Your task to perform on an android device: turn pop-ups on in chrome Image 0: 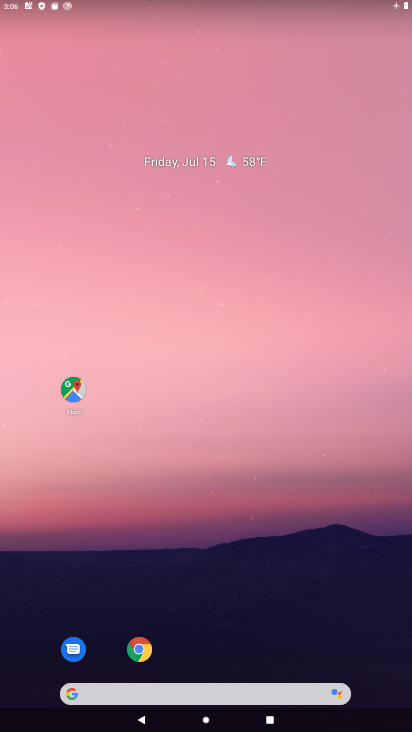
Step 0: click (141, 646)
Your task to perform on an android device: turn pop-ups on in chrome Image 1: 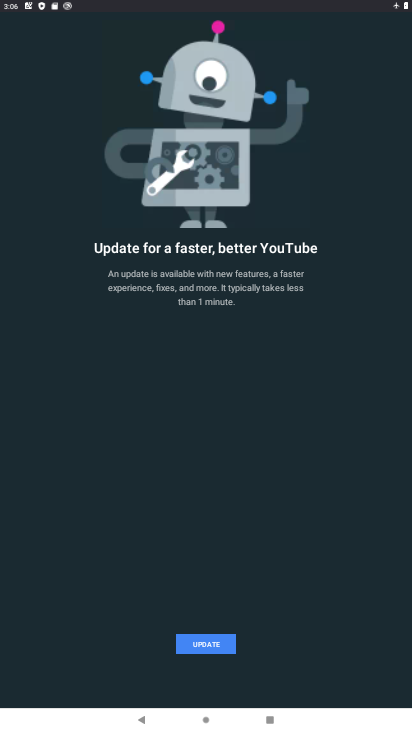
Step 1: press home button
Your task to perform on an android device: turn pop-ups on in chrome Image 2: 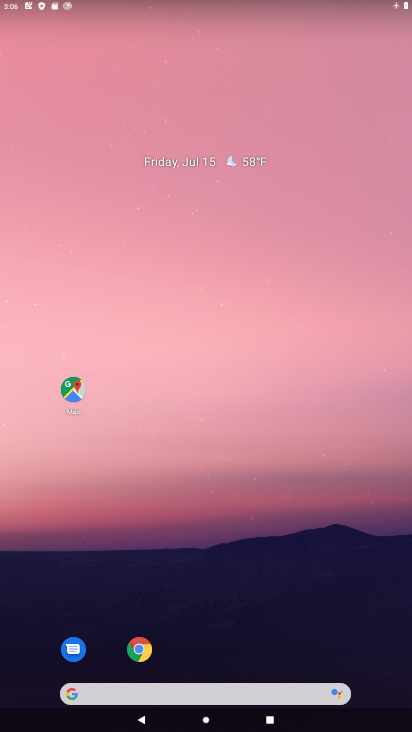
Step 2: click (139, 647)
Your task to perform on an android device: turn pop-ups on in chrome Image 3: 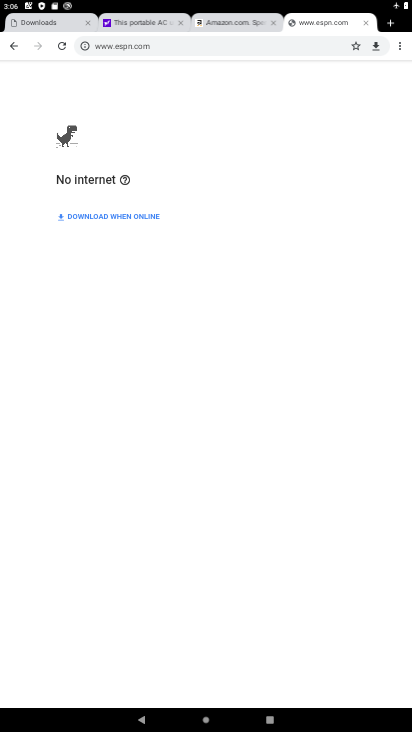
Step 3: click (399, 50)
Your task to perform on an android device: turn pop-ups on in chrome Image 4: 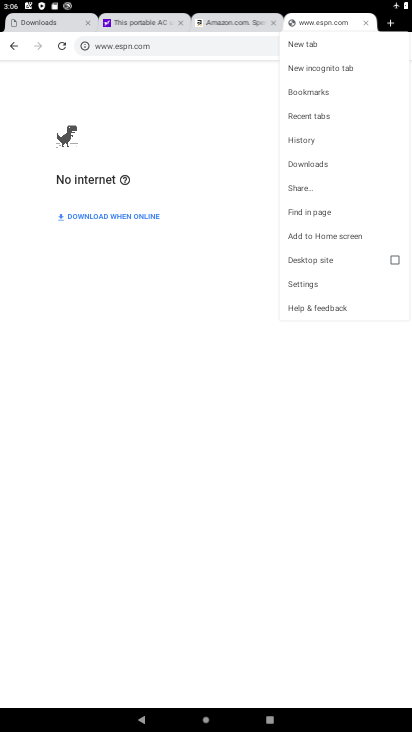
Step 4: click (301, 283)
Your task to perform on an android device: turn pop-ups on in chrome Image 5: 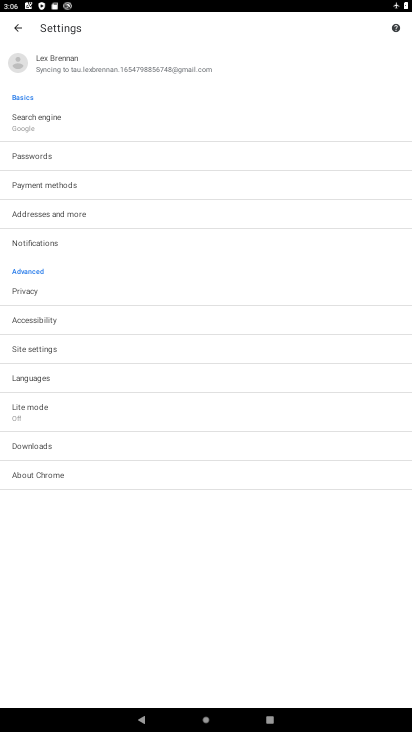
Step 5: click (35, 349)
Your task to perform on an android device: turn pop-ups on in chrome Image 6: 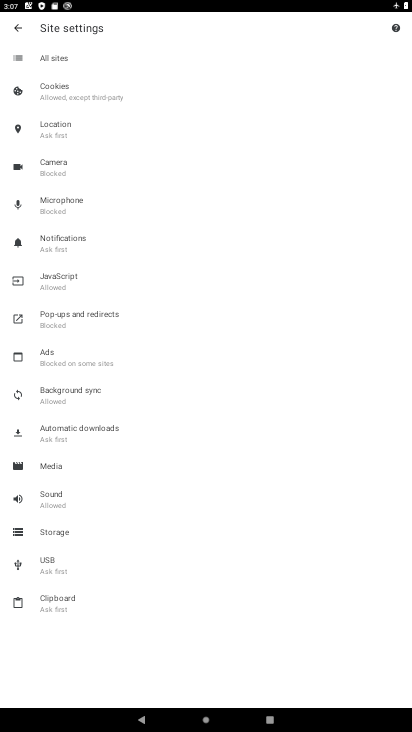
Step 6: click (70, 316)
Your task to perform on an android device: turn pop-ups on in chrome Image 7: 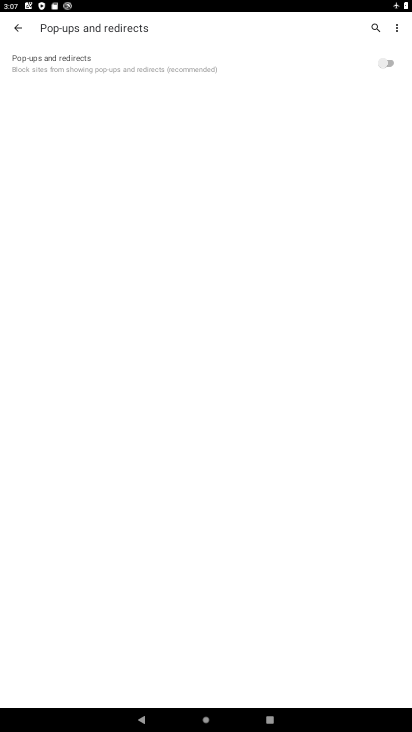
Step 7: click (389, 60)
Your task to perform on an android device: turn pop-ups on in chrome Image 8: 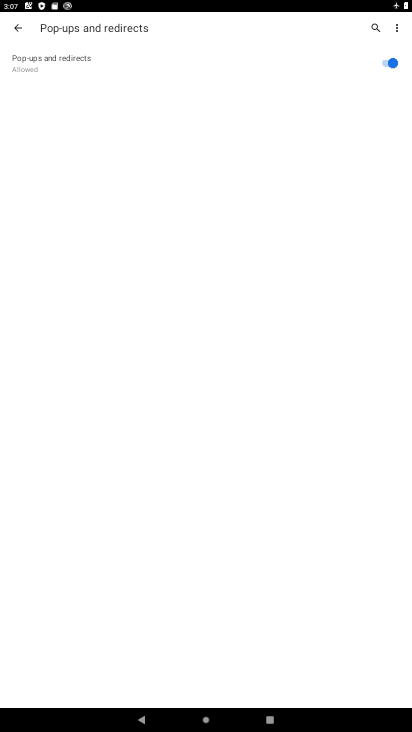
Step 8: task complete